Your task to perform on an android device: Do I have any events today? Image 0: 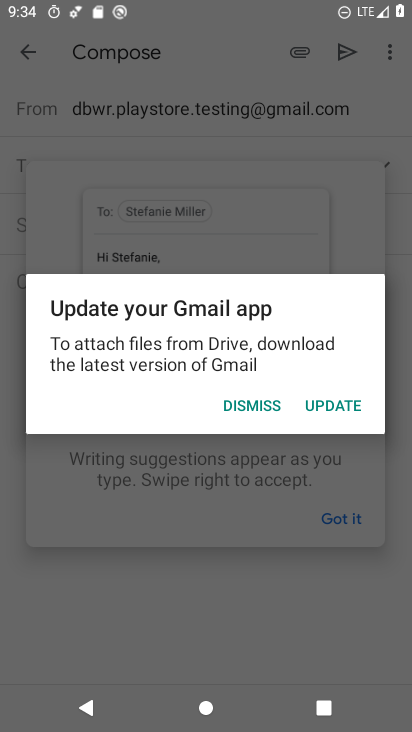
Step 0: press home button
Your task to perform on an android device: Do I have any events today? Image 1: 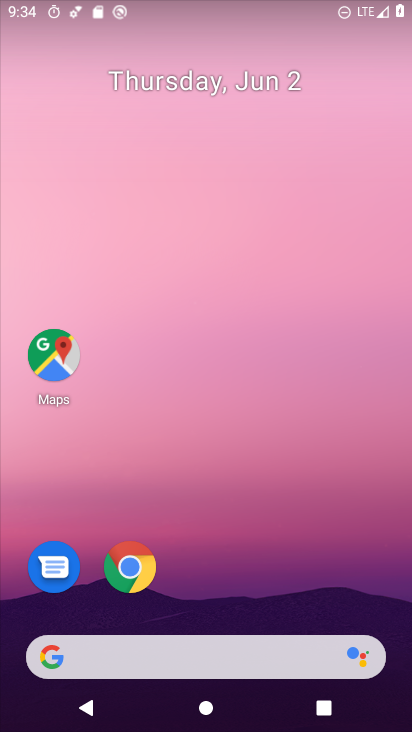
Step 1: drag from (366, 556) to (339, 115)
Your task to perform on an android device: Do I have any events today? Image 2: 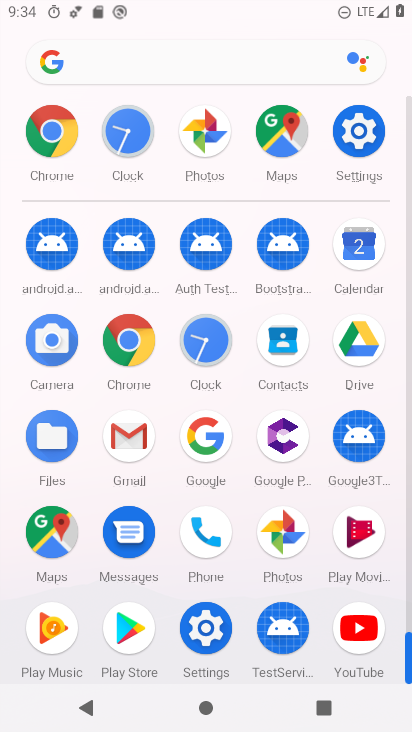
Step 2: drag from (327, 576) to (326, 313)
Your task to perform on an android device: Do I have any events today? Image 3: 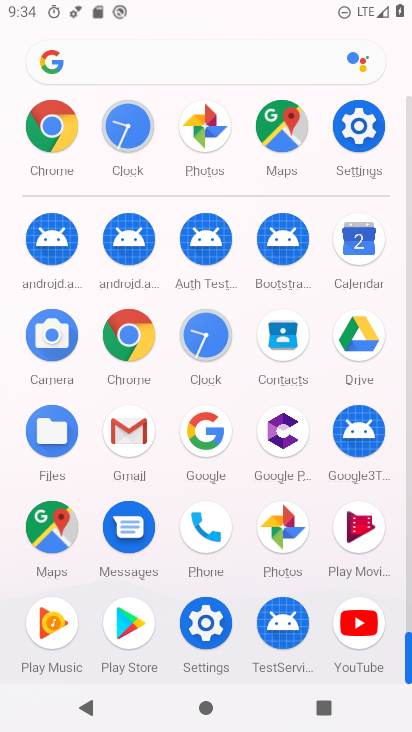
Step 3: click (144, 345)
Your task to perform on an android device: Do I have any events today? Image 4: 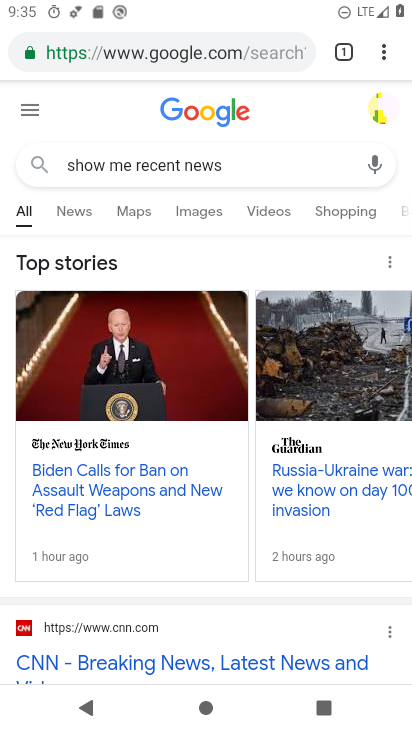
Step 4: click (265, 47)
Your task to perform on an android device: Do I have any events today? Image 5: 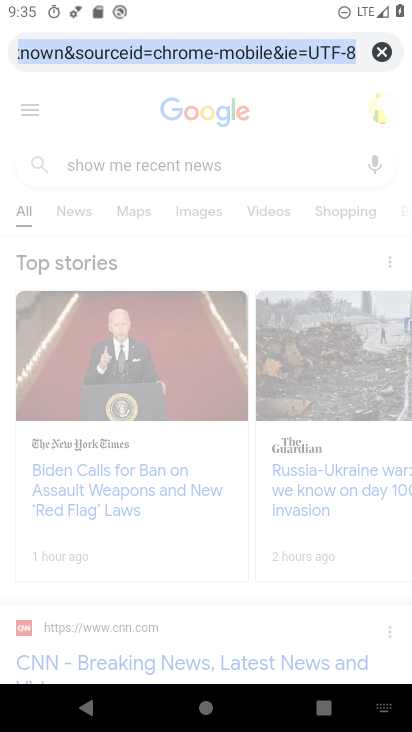
Step 5: click (384, 57)
Your task to perform on an android device: Do I have any events today? Image 6: 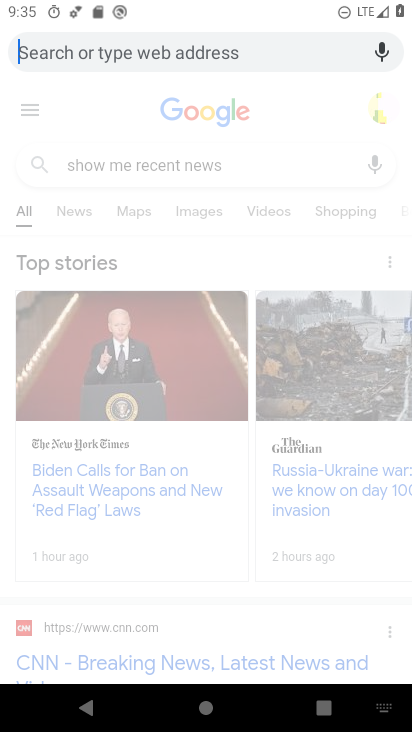
Step 6: type "do i have any events today"
Your task to perform on an android device: Do I have any events today? Image 7: 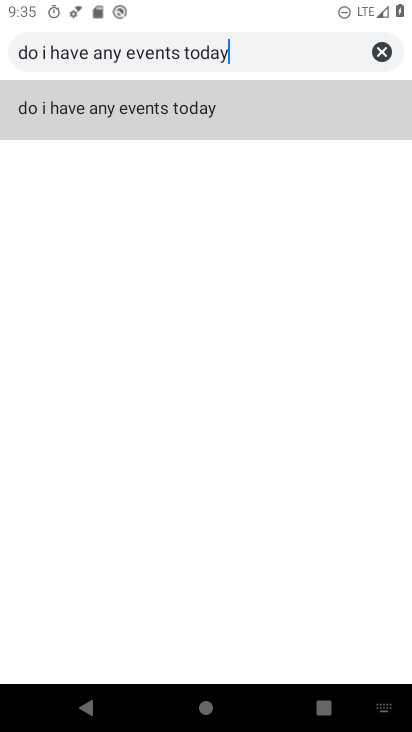
Step 7: click (165, 87)
Your task to perform on an android device: Do I have any events today? Image 8: 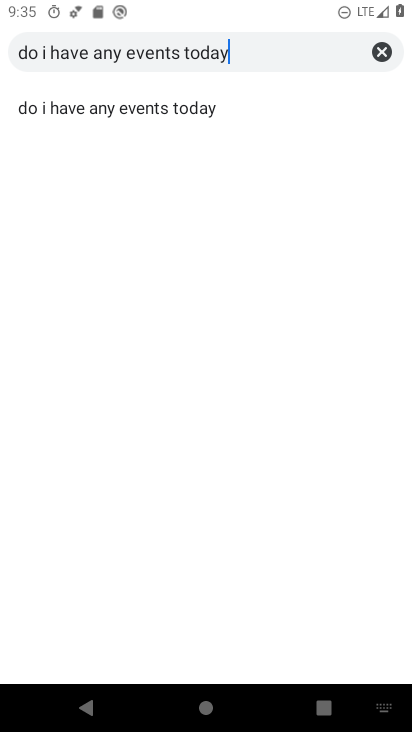
Step 8: click (169, 105)
Your task to perform on an android device: Do I have any events today? Image 9: 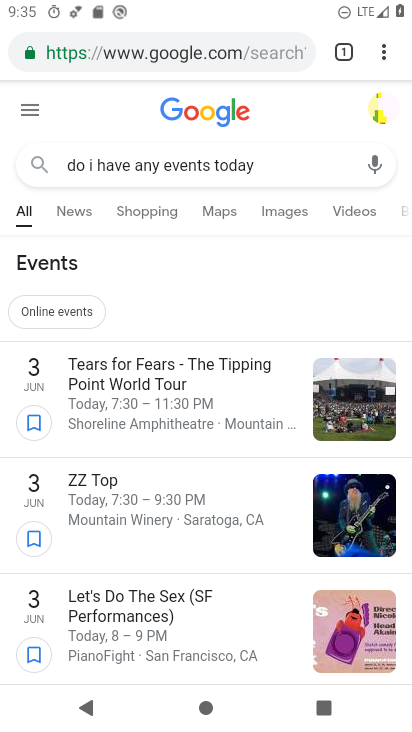
Step 9: task complete